Your task to perform on an android device: toggle notification dots Image 0: 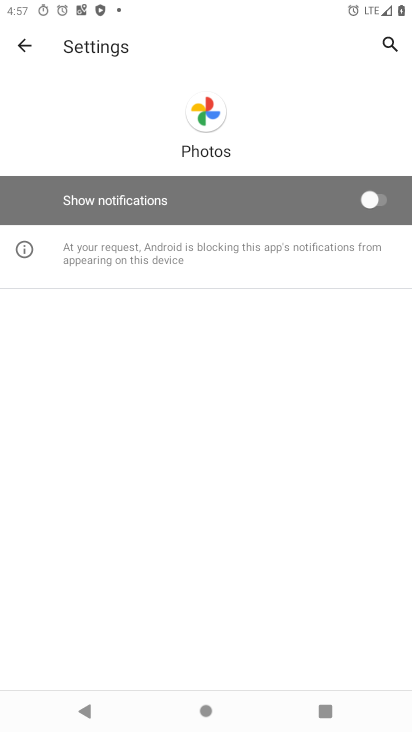
Step 0: press home button
Your task to perform on an android device: toggle notification dots Image 1: 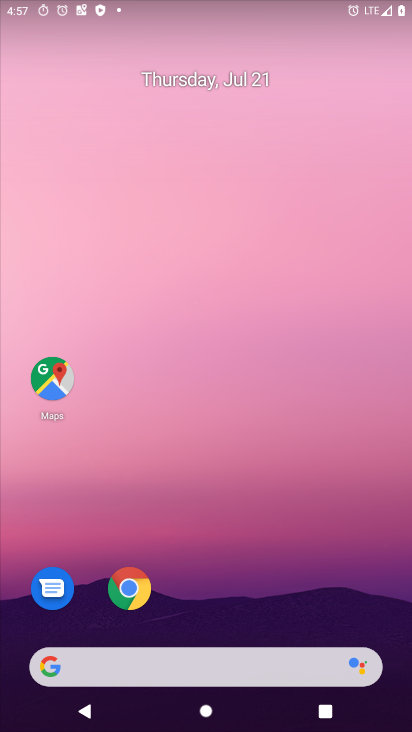
Step 1: drag from (283, 289) to (291, 131)
Your task to perform on an android device: toggle notification dots Image 2: 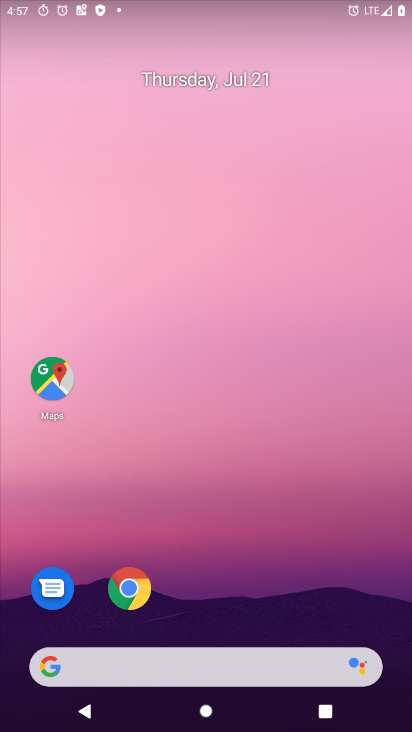
Step 2: drag from (221, 584) to (211, 520)
Your task to perform on an android device: toggle notification dots Image 3: 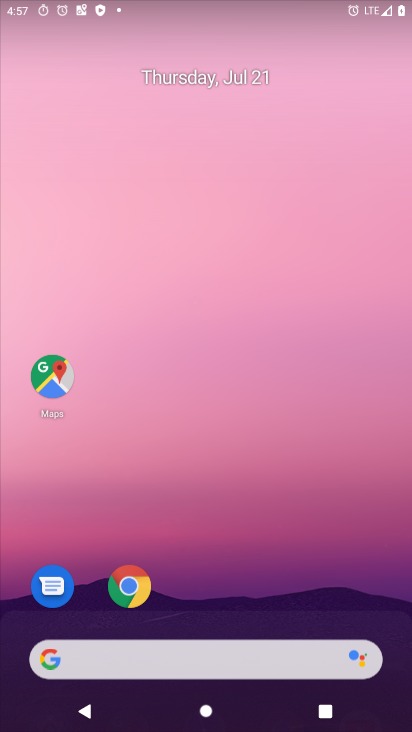
Step 3: drag from (210, 379) to (209, 74)
Your task to perform on an android device: toggle notification dots Image 4: 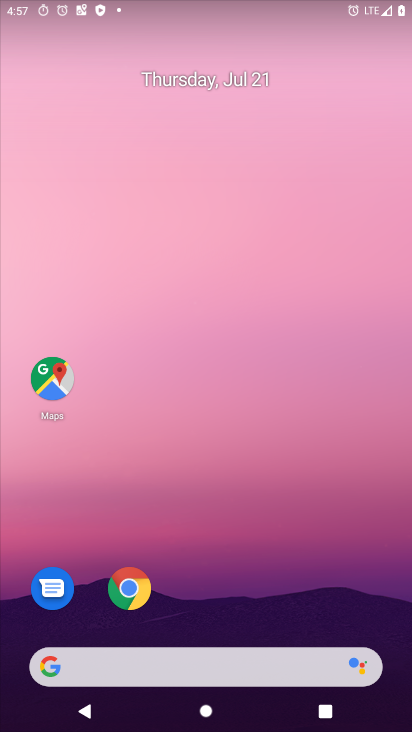
Step 4: drag from (189, 615) to (175, 97)
Your task to perform on an android device: toggle notification dots Image 5: 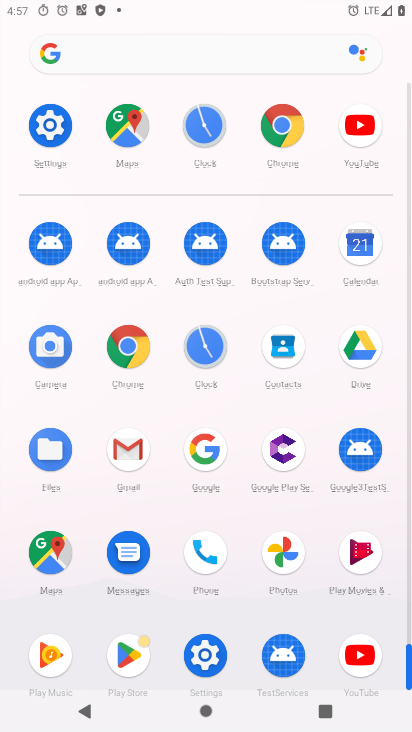
Step 5: click (209, 662)
Your task to perform on an android device: toggle notification dots Image 6: 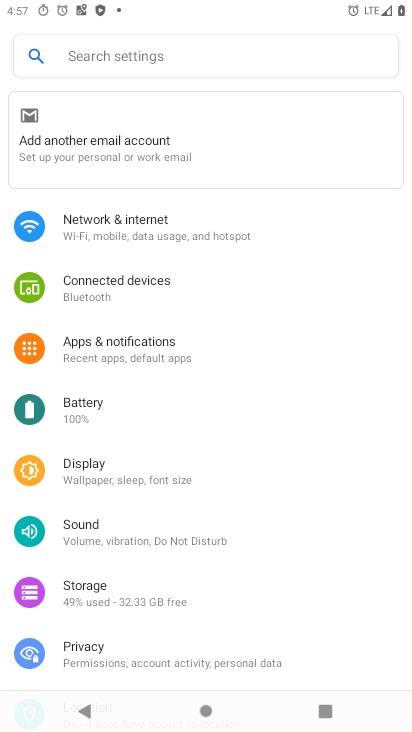
Step 6: drag from (269, 597) to (269, 217)
Your task to perform on an android device: toggle notification dots Image 7: 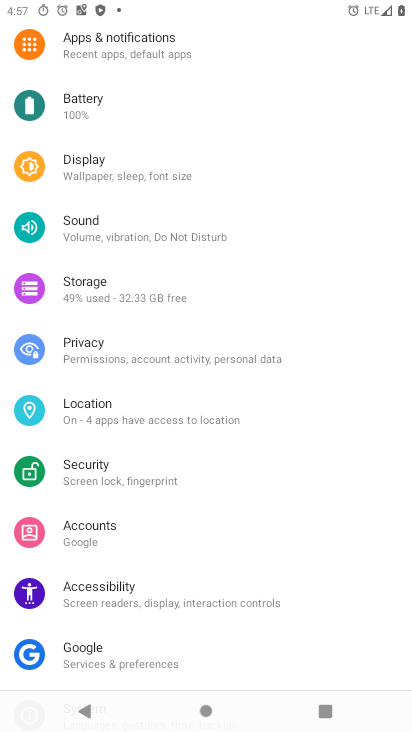
Step 7: click (111, 42)
Your task to perform on an android device: toggle notification dots Image 8: 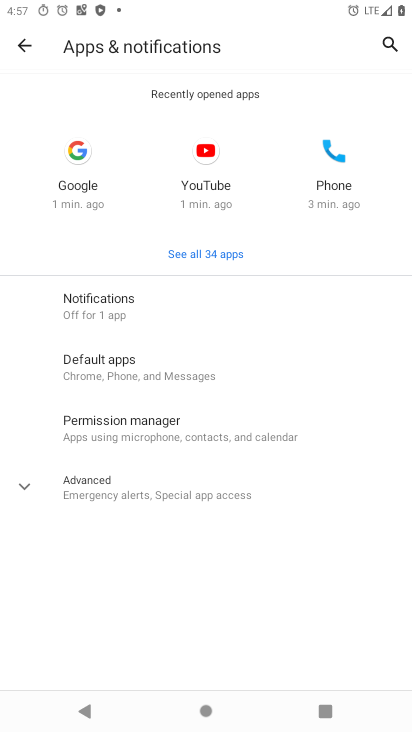
Step 8: click (119, 304)
Your task to perform on an android device: toggle notification dots Image 9: 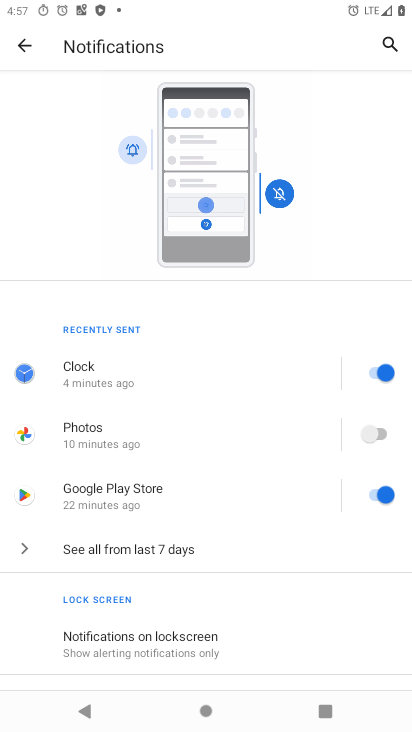
Step 9: drag from (276, 615) to (297, 384)
Your task to perform on an android device: toggle notification dots Image 10: 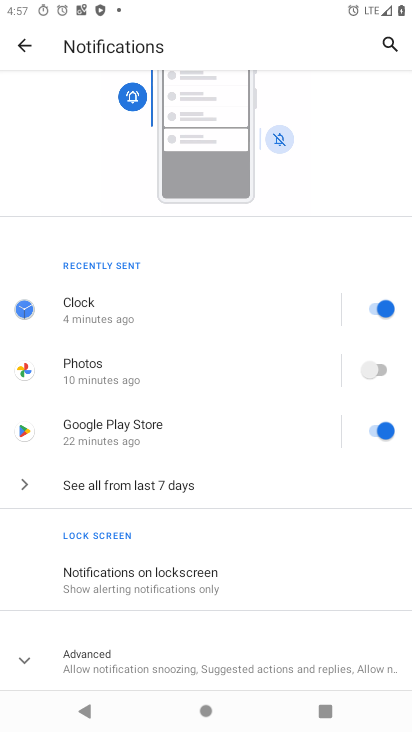
Step 10: click (250, 665)
Your task to perform on an android device: toggle notification dots Image 11: 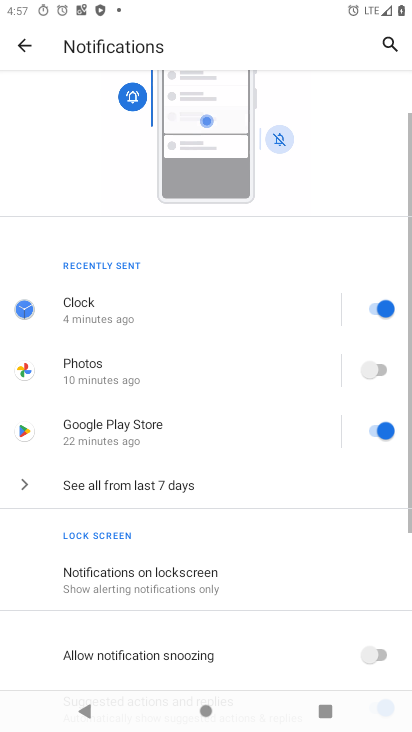
Step 11: drag from (250, 647) to (313, 340)
Your task to perform on an android device: toggle notification dots Image 12: 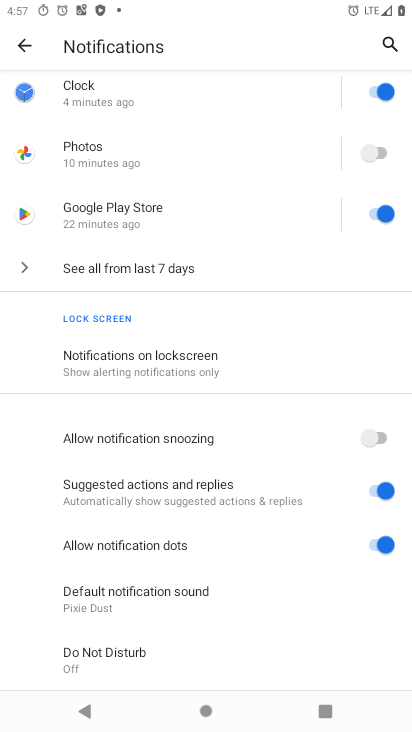
Step 12: click (391, 541)
Your task to perform on an android device: toggle notification dots Image 13: 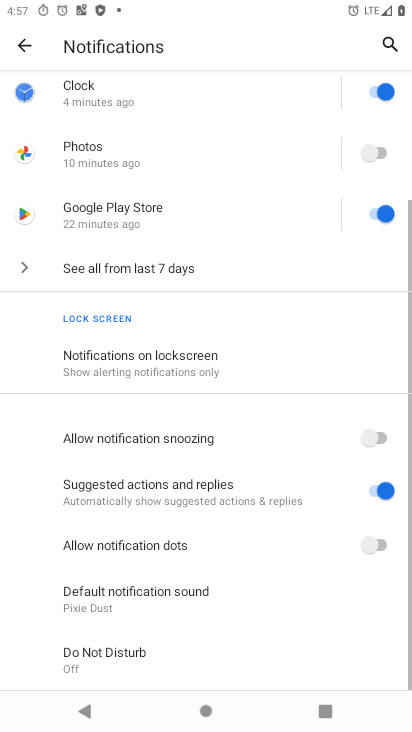
Step 13: task complete